Your task to perform on an android device: View the shopping cart on bestbuy. Add panasonic triple a to the cart on bestbuy Image 0: 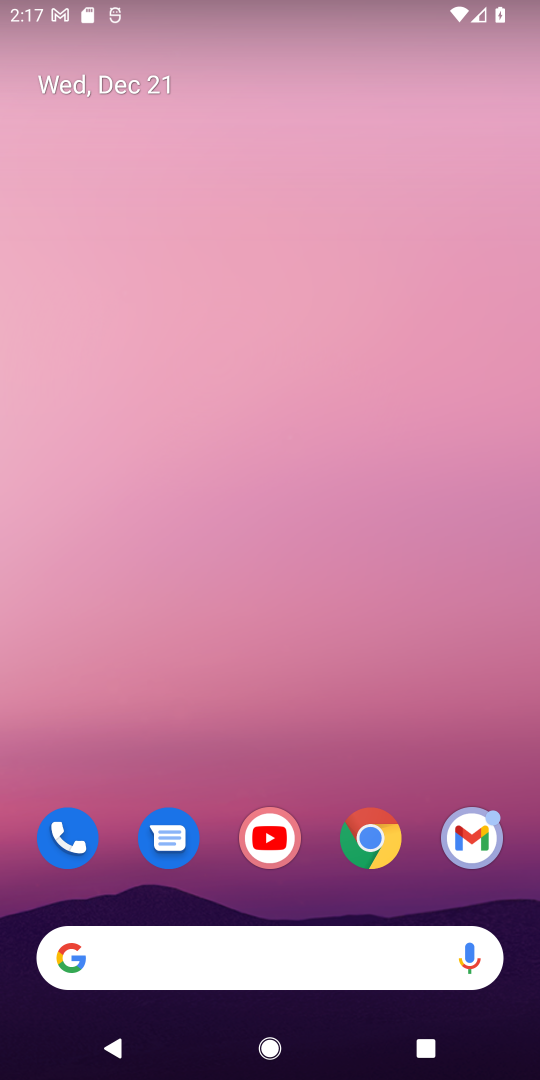
Step 0: click (391, 834)
Your task to perform on an android device: View the shopping cart on bestbuy. Add panasonic triple a to the cart on bestbuy Image 1: 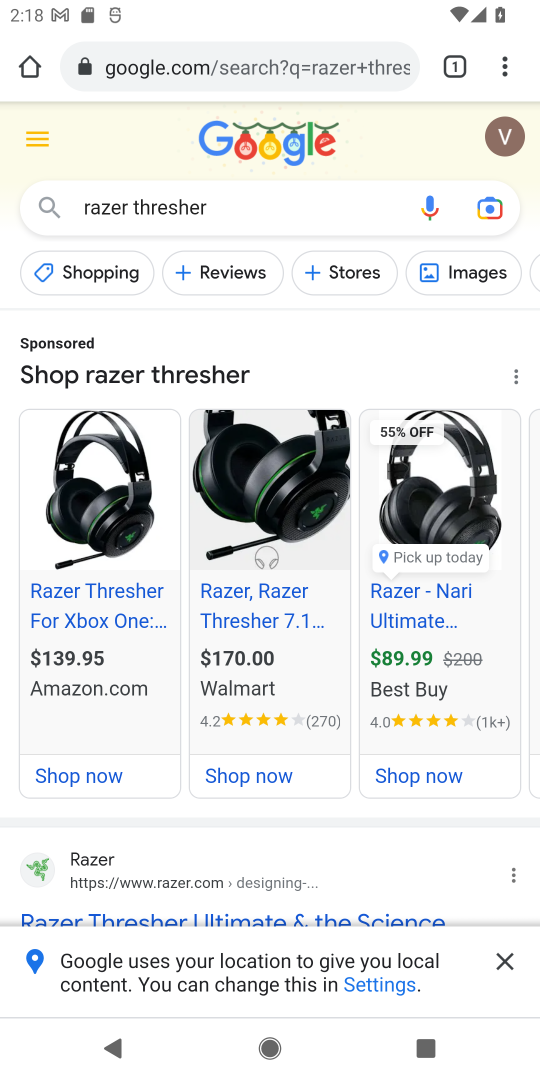
Step 1: click (247, 60)
Your task to perform on an android device: View the shopping cart on bestbuy. Add panasonic triple a to the cart on bestbuy Image 2: 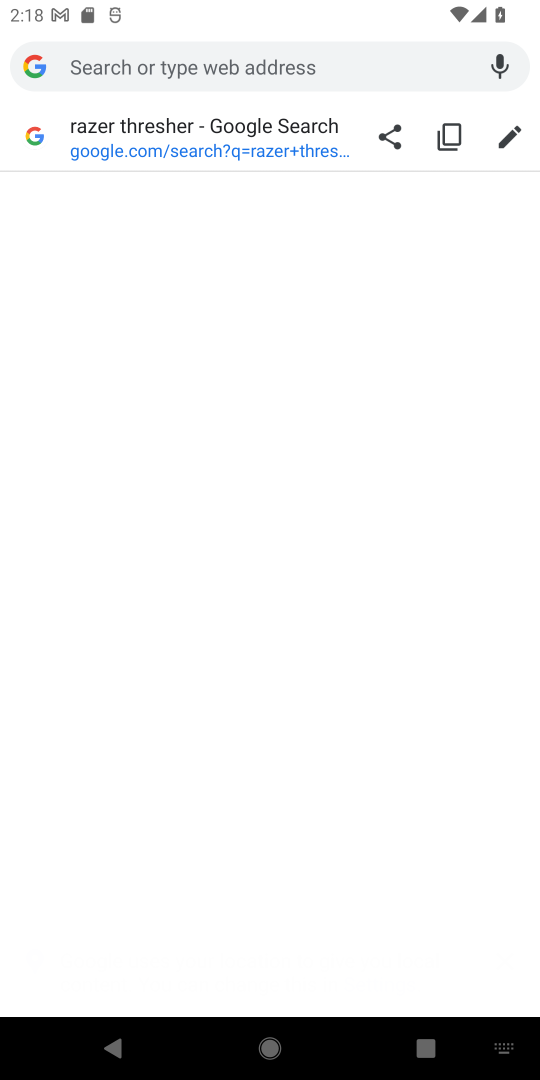
Step 2: type "bestbuy"
Your task to perform on an android device: View the shopping cart on bestbuy. Add panasonic triple a to the cart on bestbuy Image 3: 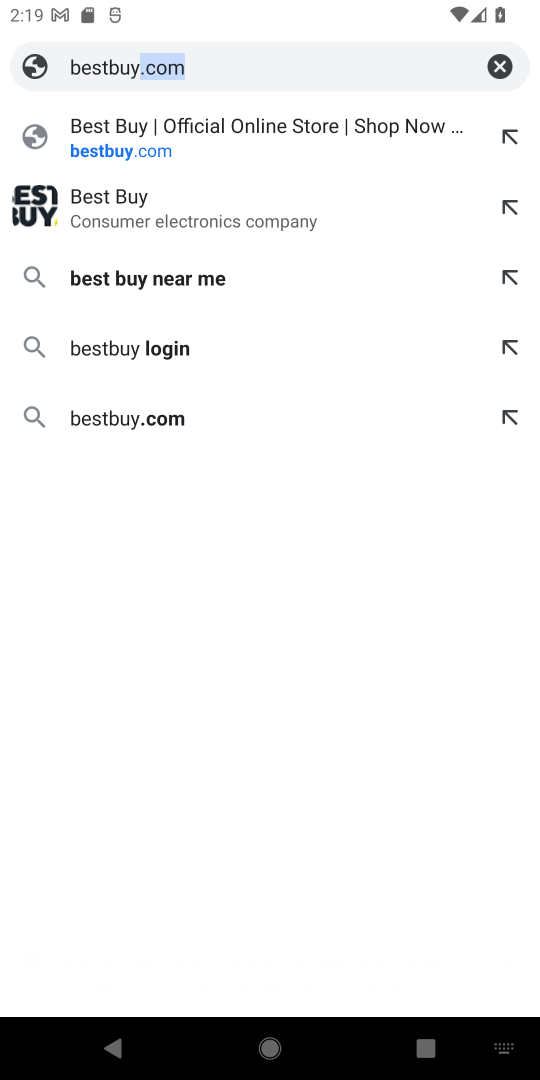
Step 3: click (211, 157)
Your task to perform on an android device: View the shopping cart on bestbuy. Add panasonic triple a to the cart on bestbuy Image 4: 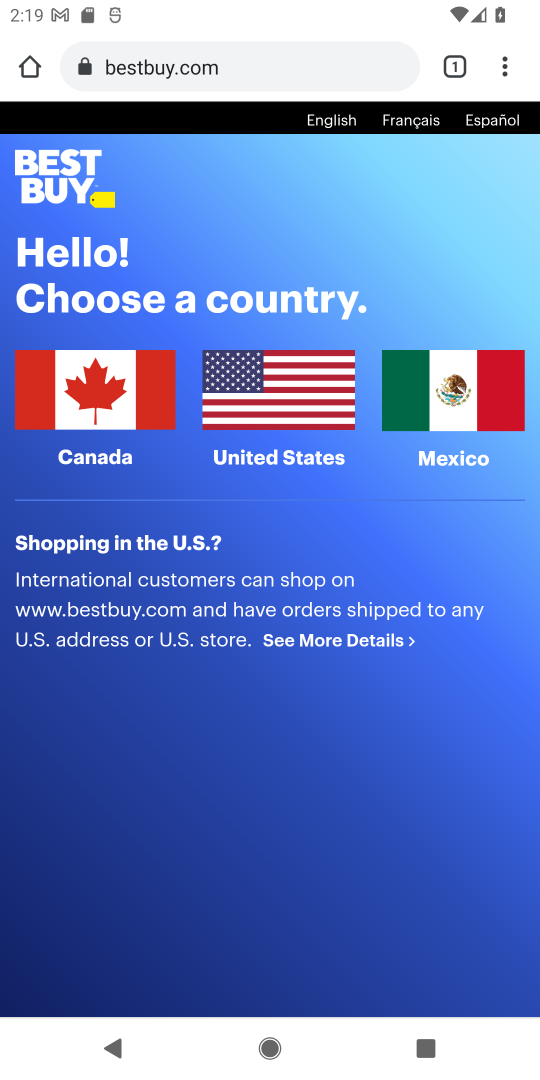
Step 4: click (69, 354)
Your task to perform on an android device: View the shopping cart on bestbuy. Add panasonic triple a to the cart on bestbuy Image 5: 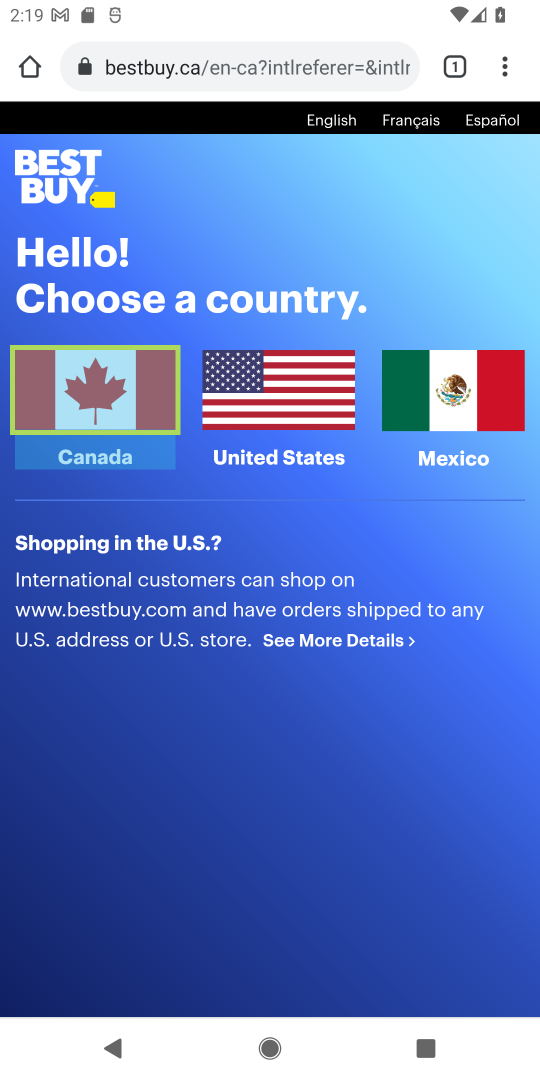
Step 5: task complete